Your task to perform on an android device: Show me popular videos on Youtube Image 0: 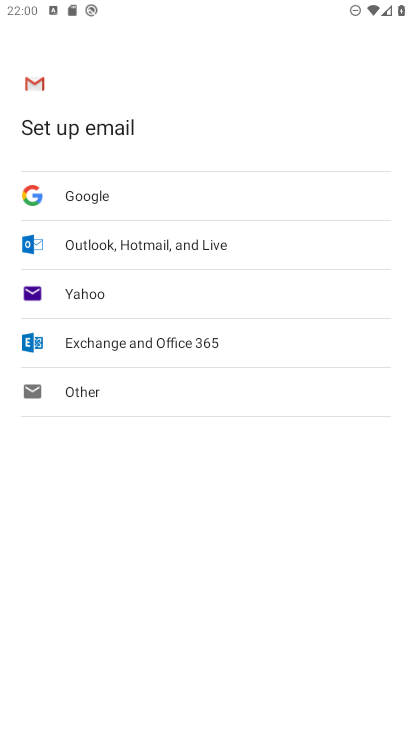
Step 0: press home button
Your task to perform on an android device: Show me popular videos on Youtube Image 1: 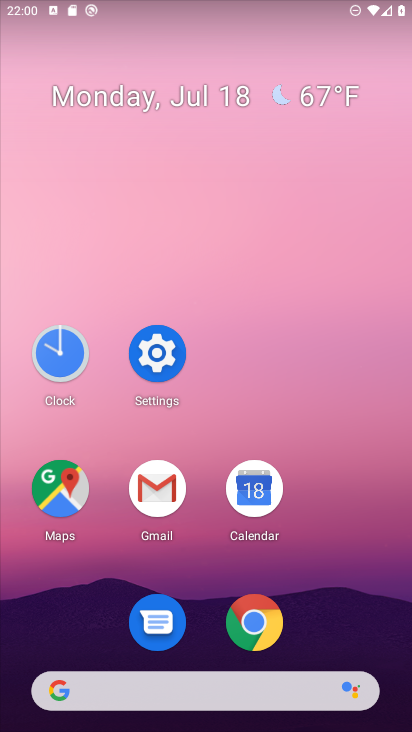
Step 1: drag from (384, 691) to (294, 100)
Your task to perform on an android device: Show me popular videos on Youtube Image 2: 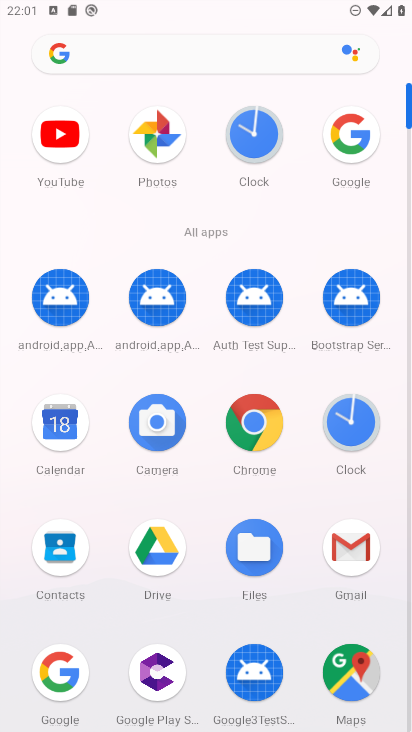
Step 2: click (53, 151)
Your task to perform on an android device: Show me popular videos on Youtube Image 3: 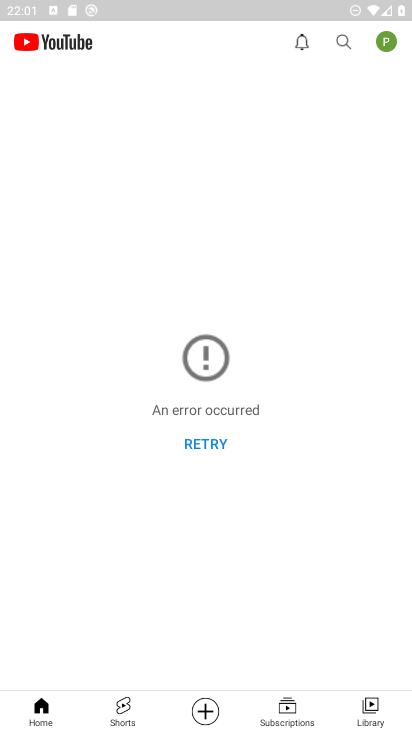
Step 3: click (372, 706)
Your task to perform on an android device: Show me popular videos on Youtube Image 4: 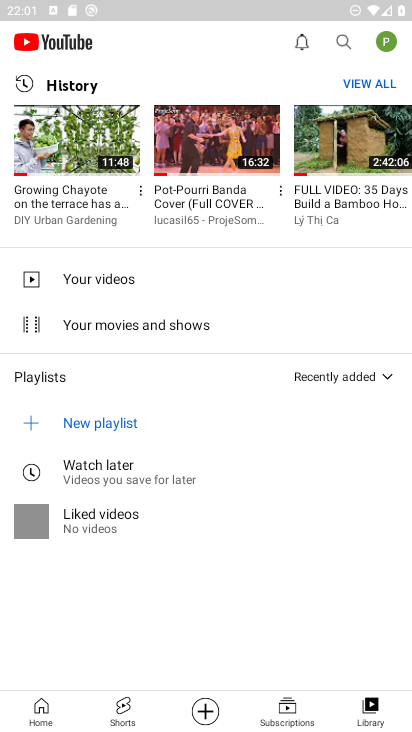
Step 4: click (335, 45)
Your task to perform on an android device: Show me popular videos on Youtube Image 5: 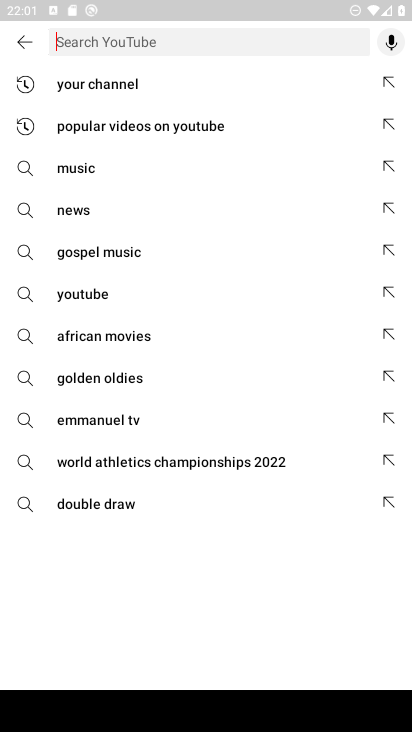
Step 5: type " popular videos on Youtube"
Your task to perform on an android device: Show me popular videos on Youtube Image 6: 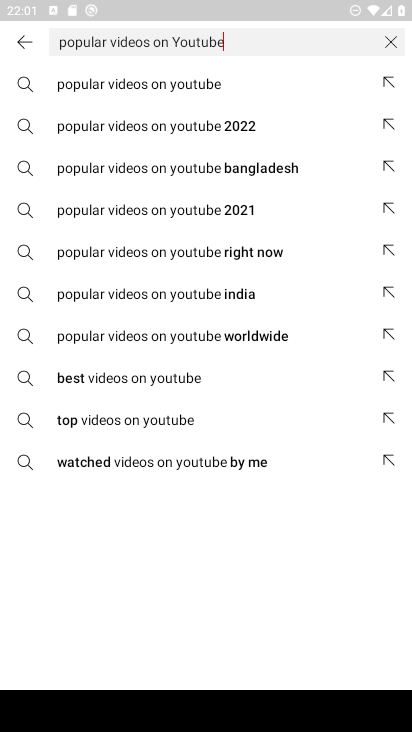
Step 6: click (173, 82)
Your task to perform on an android device: Show me popular videos on Youtube Image 7: 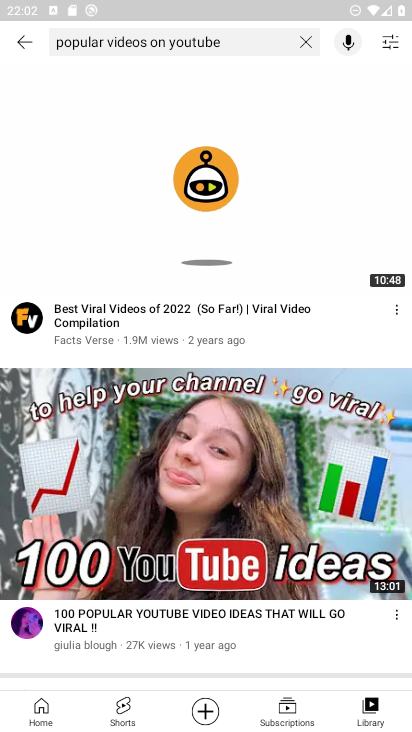
Step 7: task complete